Your task to perform on an android device: Open eBay Image 0: 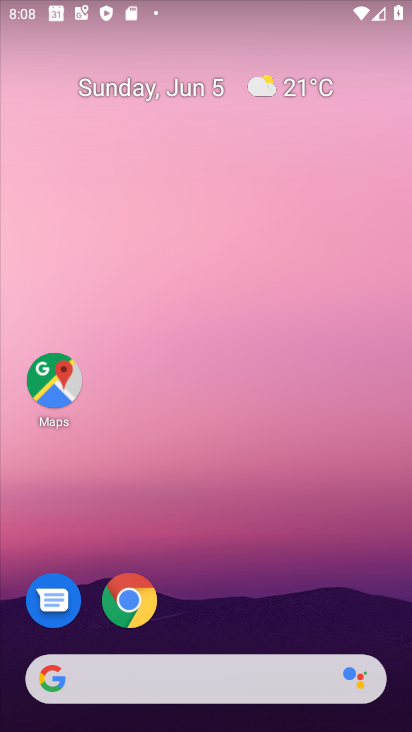
Step 0: click (116, 598)
Your task to perform on an android device: Open eBay Image 1: 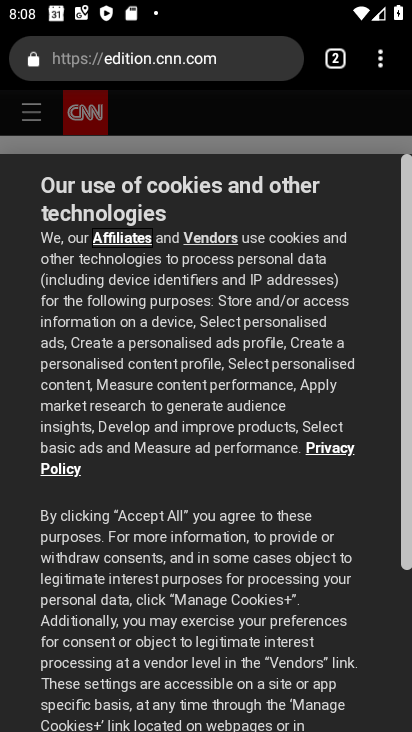
Step 1: click (343, 52)
Your task to perform on an android device: Open eBay Image 2: 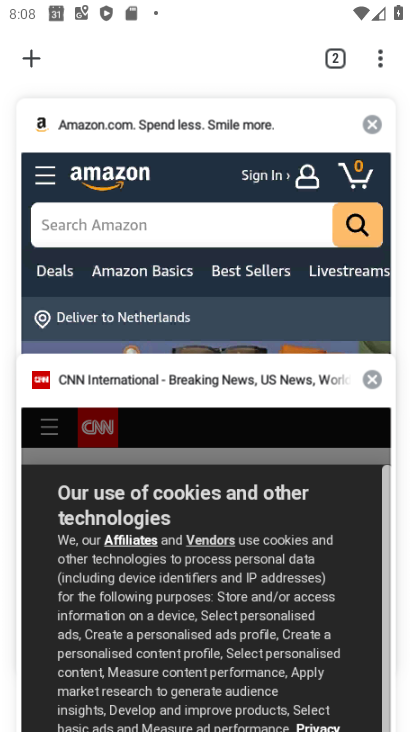
Step 2: click (371, 380)
Your task to perform on an android device: Open eBay Image 3: 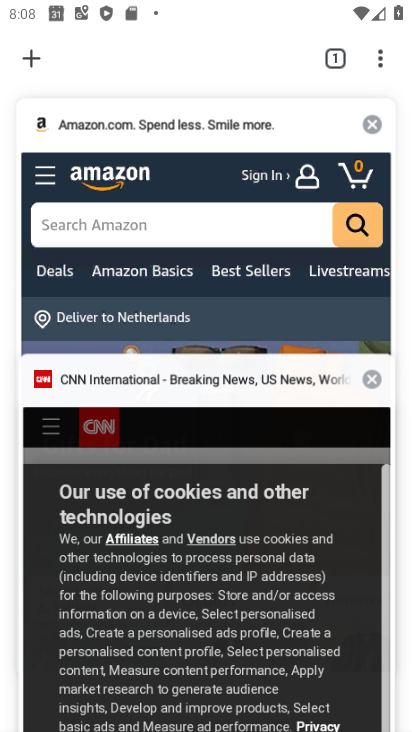
Step 3: click (375, 126)
Your task to perform on an android device: Open eBay Image 4: 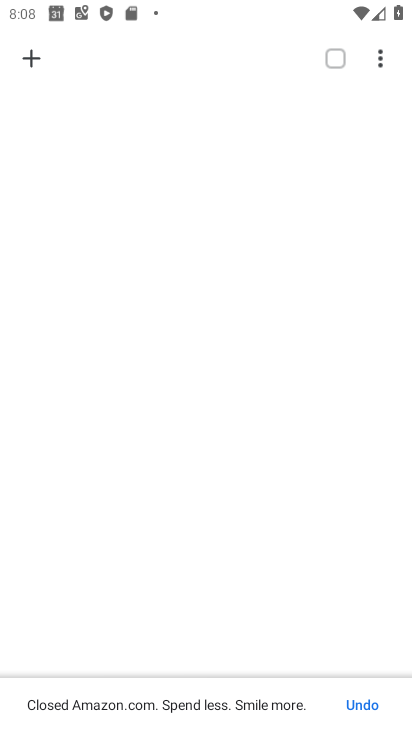
Step 4: click (22, 62)
Your task to perform on an android device: Open eBay Image 5: 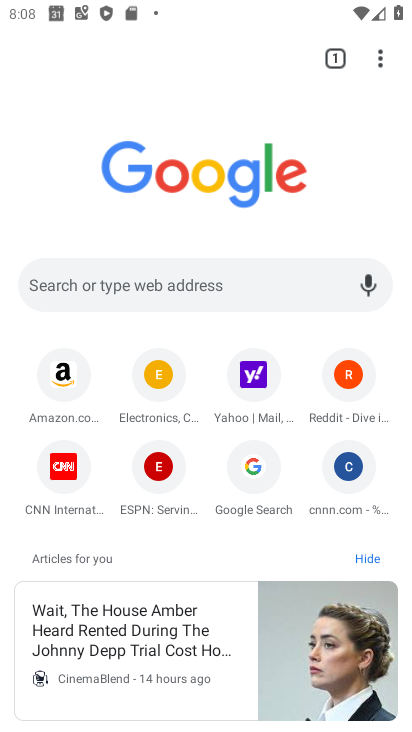
Step 5: click (212, 283)
Your task to perform on an android device: Open eBay Image 6: 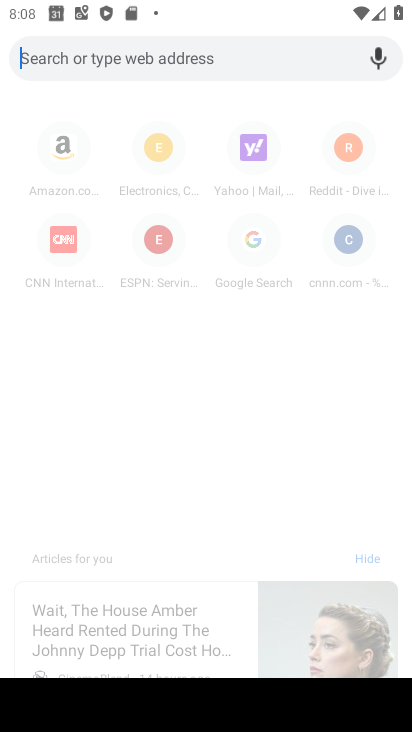
Step 6: type "ebay"
Your task to perform on an android device: Open eBay Image 7: 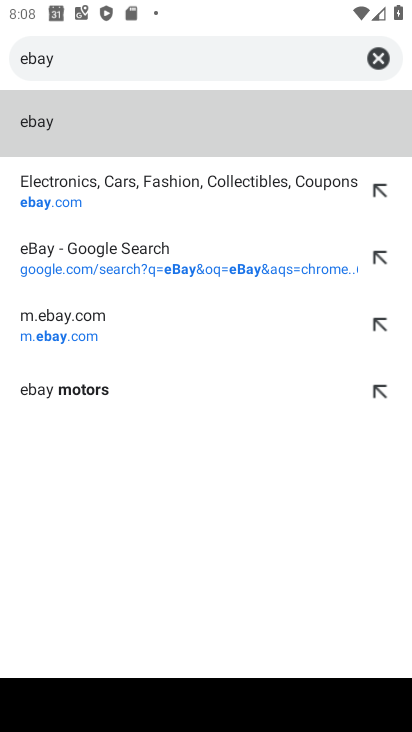
Step 7: click (112, 116)
Your task to perform on an android device: Open eBay Image 8: 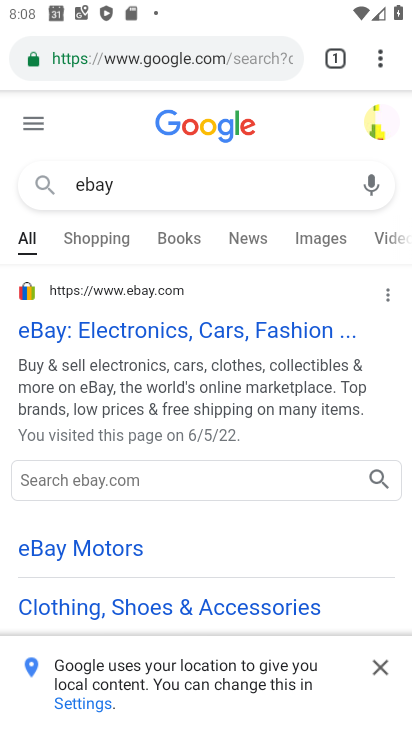
Step 8: click (95, 328)
Your task to perform on an android device: Open eBay Image 9: 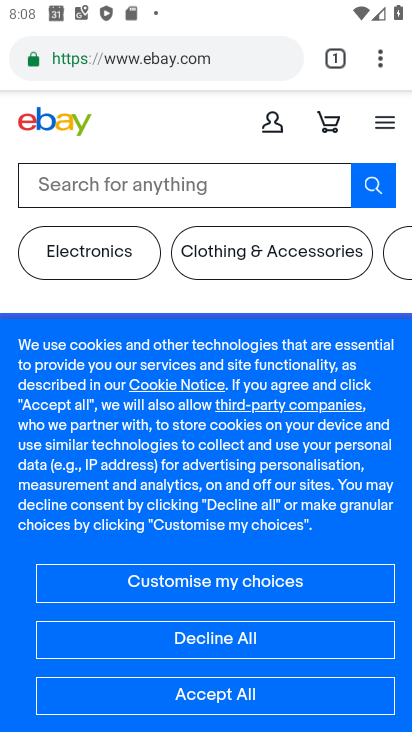
Step 9: click (221, 704)
Your task to perform on an android device: Open eBay Image 10: 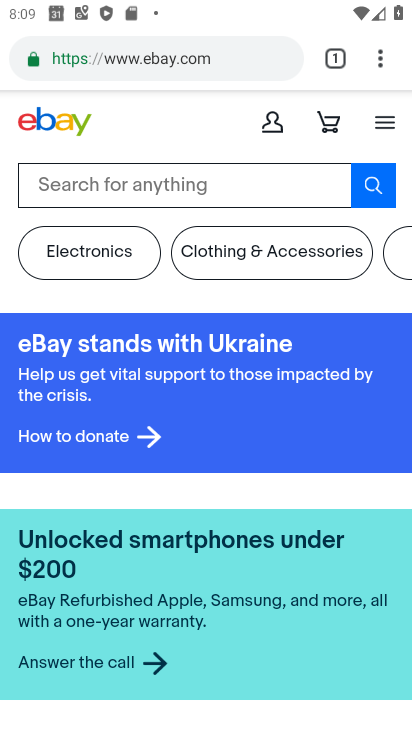
Step 10: task complete